Your task to perform on an android device: check google app version Image 0: 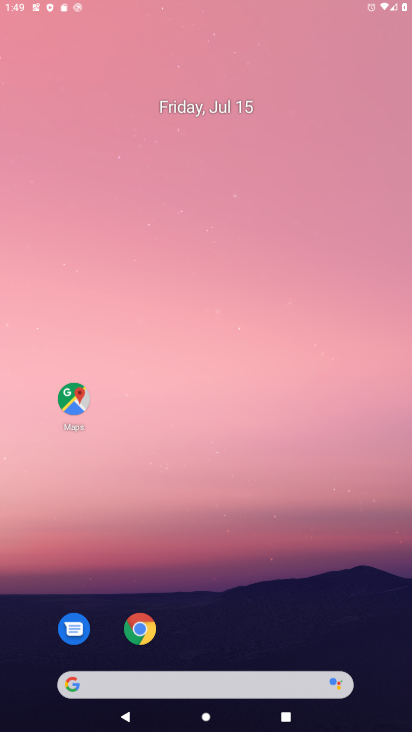
Step 0: click (263, 159)
Your task to perform on an android device: check google app version Image 1: 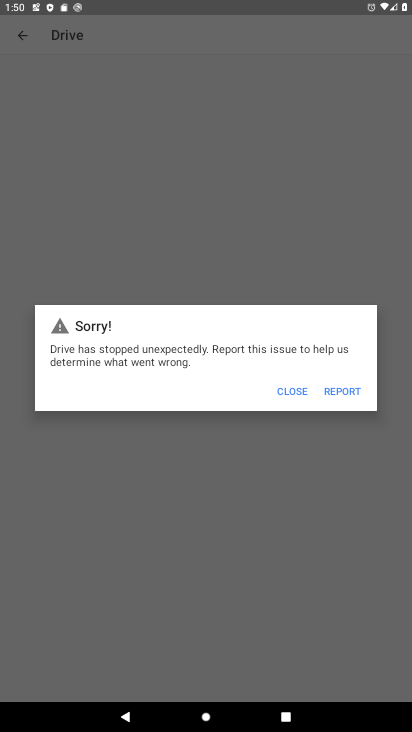
Step 1: press home button
Your task to perform on an android device: check google app version Image 2: 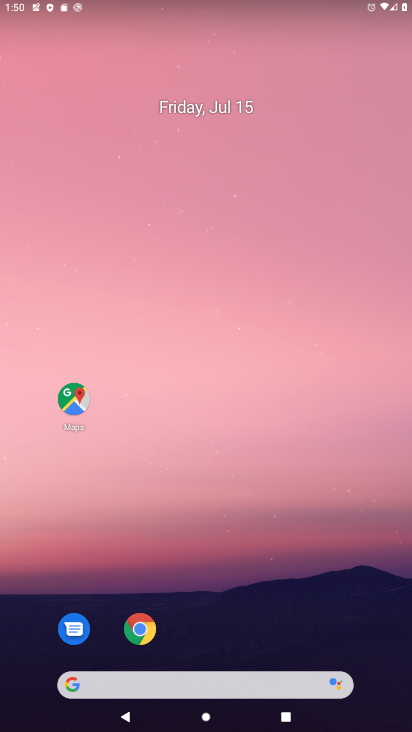
Step 2: drag from (322, 557) to (159, 21)
Your task to perform on an android device: check google app version Image 3: 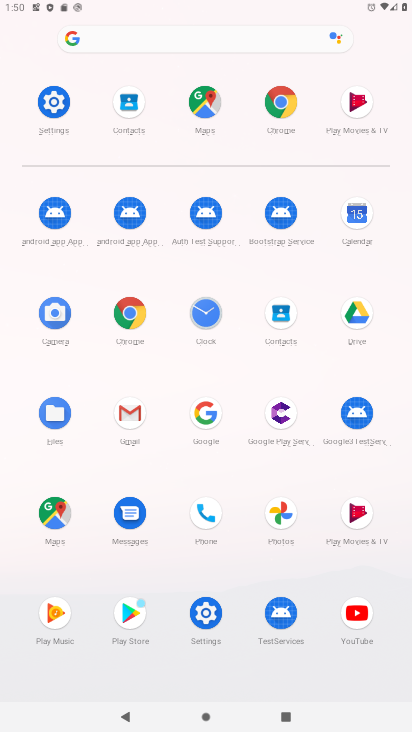
Step 3: click (197, 412)
Your task to perform on an android device: check google app version Image 4: 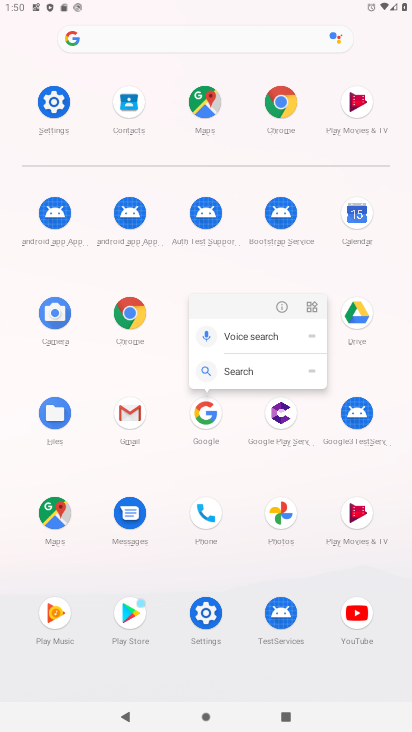
Step 4: click (279, 310)
Your task to perform on an android device: check google app version Image 5: 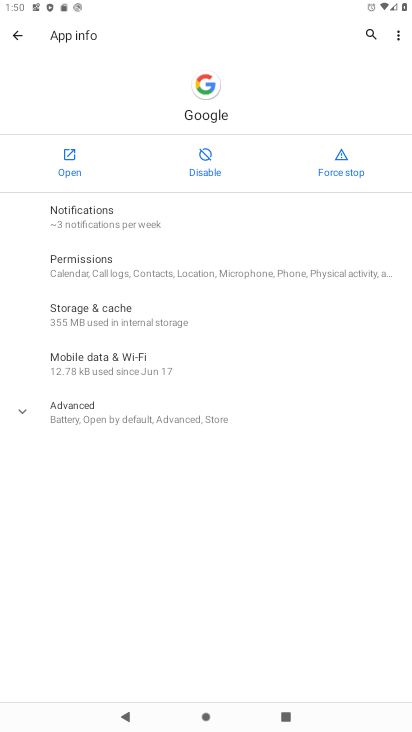
Step 5: click (138, 421)
Your task to perform on an android device: check google app version Image 6: 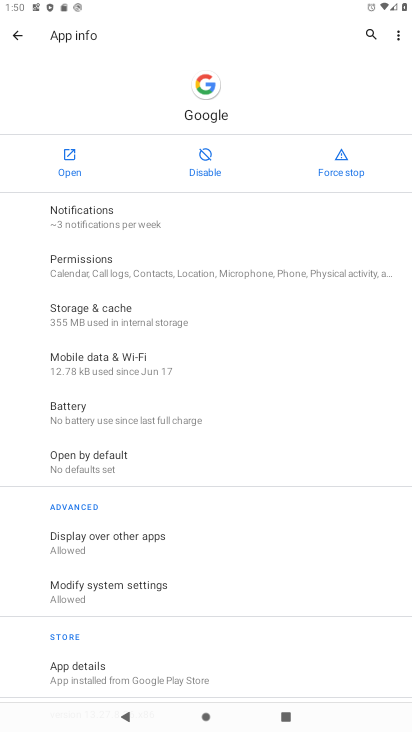
Step 6: task complete